Your task to perform on an android device: turn on location history Image 0: 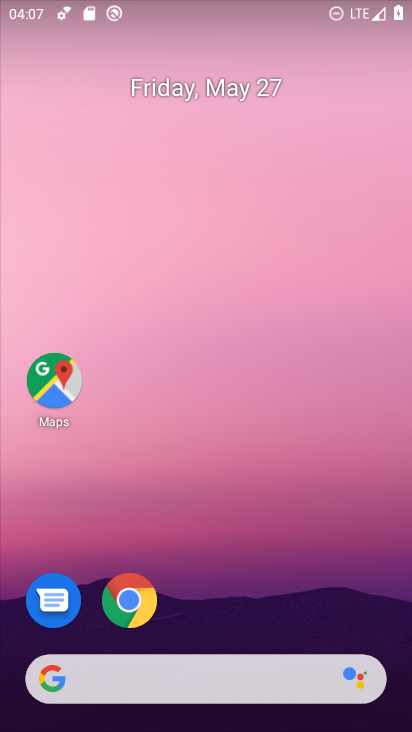
Step 0: drag from (203, 725) to (228, 166)
Your task to perform on an android device: turn on location history Image 1: 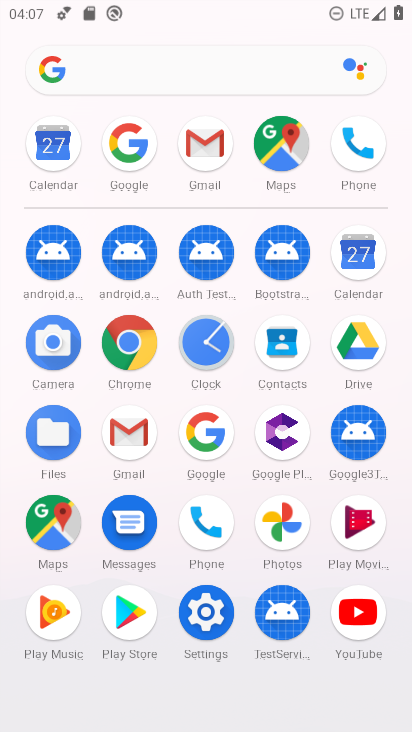
Step 1: click (204, 614)
Your task to perform on an android device: turn on location history Image 2: 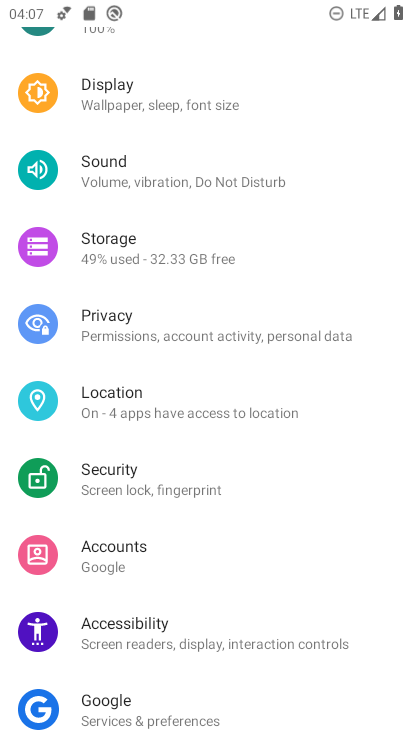
Step 2: click (135, 401)
Your task to perform on an android device: turn on location history Image 3: 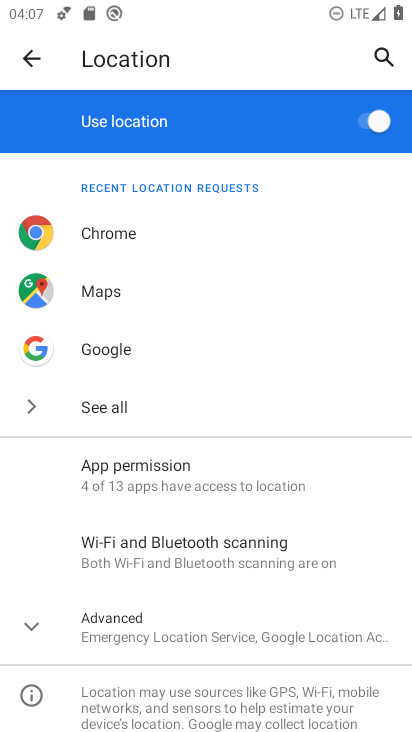
Step 3: click (115, 633)
Your task to perform on an android device: turn on location history Image 4: 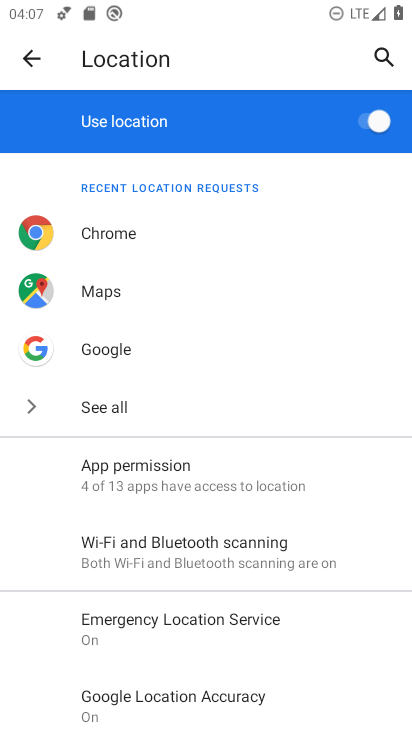
Step 4: drag from (203, 700) to (230, 387)
Your task to perform on an android device: turn on location history Image 5: 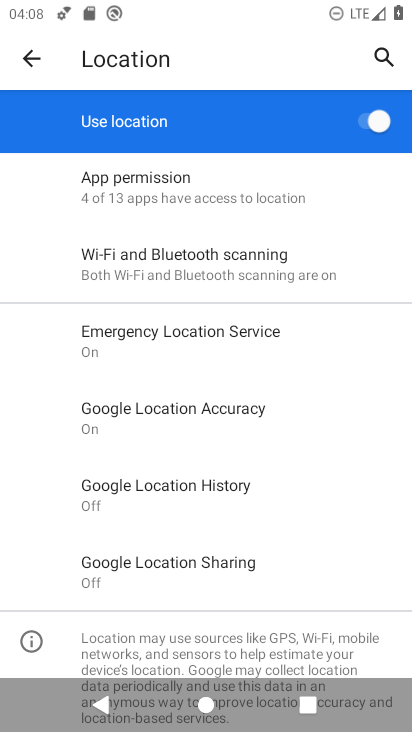
Step 5: click (192, 483)
Your task to perform on an android device: turn on location history Image 6: 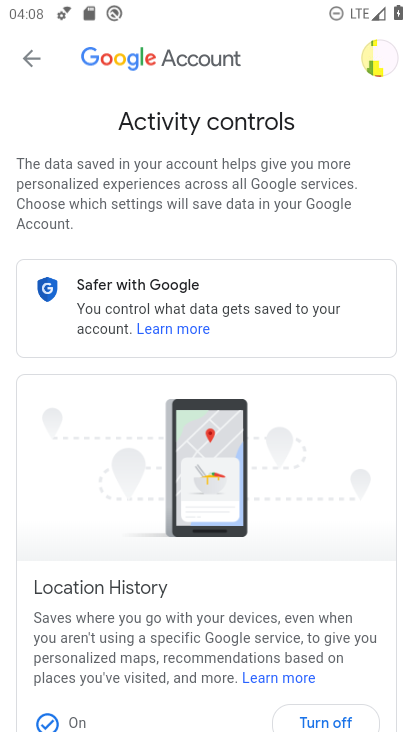
Step 6: task complete